Your task to perform on an android device: Is it going to rain this weekend? Image 0: 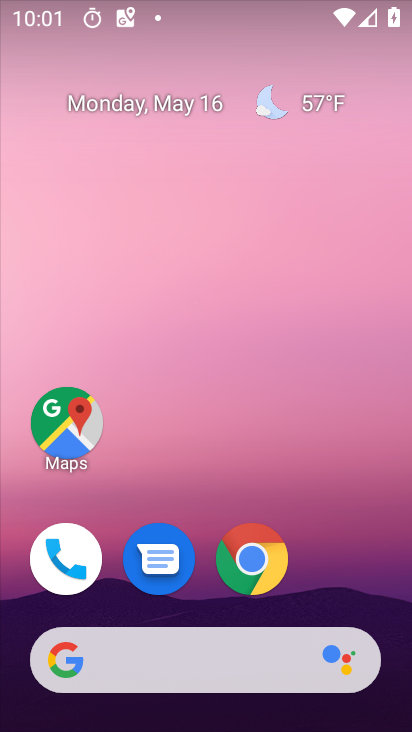
Step 0: click (312, 103)
Your task to perform on an android device: Is it going to rain this weekend? Image 1: 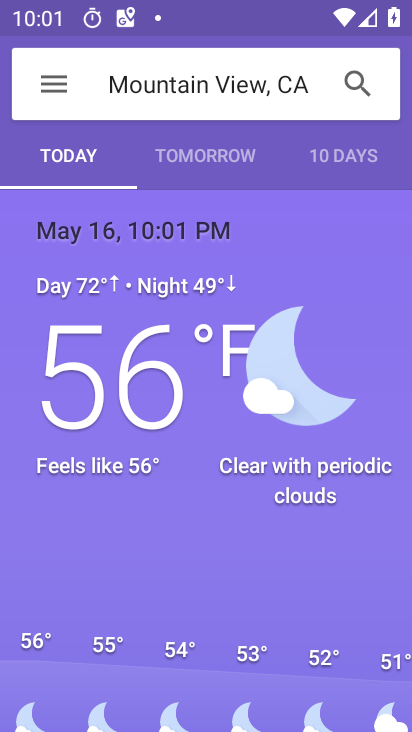
Step 1: click (342, 164)
Your task to perform on an android device: Is it going to rain this weekend? Image 2: 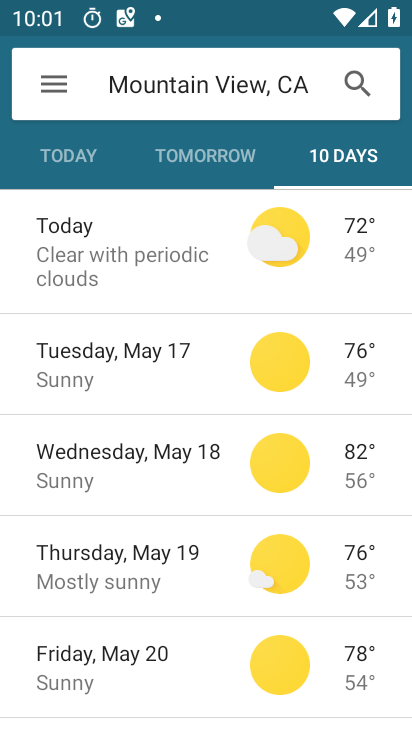
Step 2: task complete